Your task to perform on an android device: make emails show in primary in the gmail app Image 0: 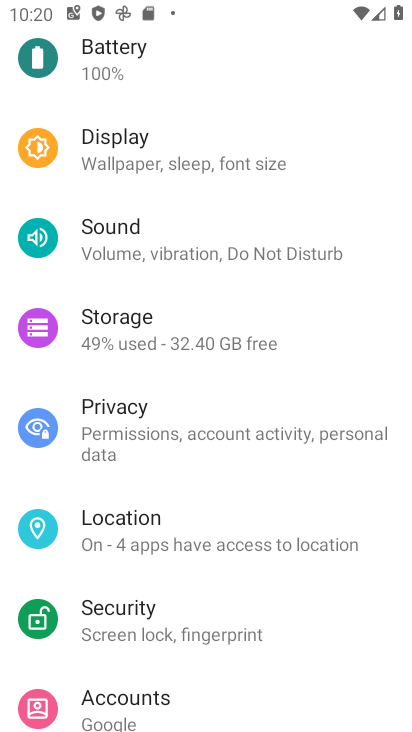
Step 0: press home button
Your task to perform on an android device: make emails show in primary in the gmail app Image 1: 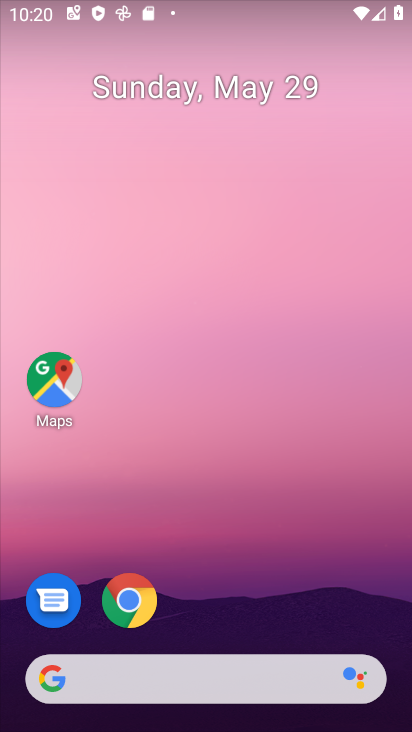
Step 1: drag from (206, 726) to (208, 142)
Your task to perform on an android device: make emails show in primary in the gmail app Image 2: 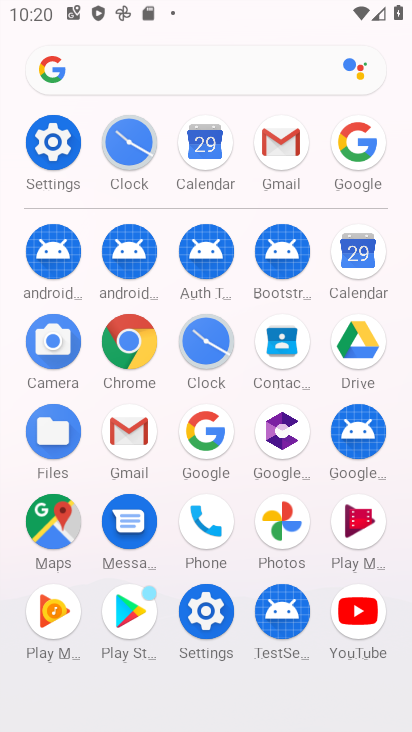
Step 2: click (130, 426)
Your task to perform on an android device: make emails show in primary in the gmail app Image 3: 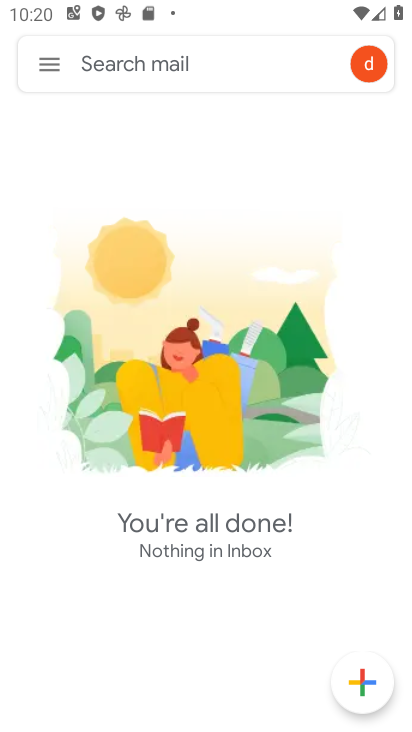
Step 3: click (46, 70)
Your task to perform on an android device: make emails show in primary in the gmail app Image 4: 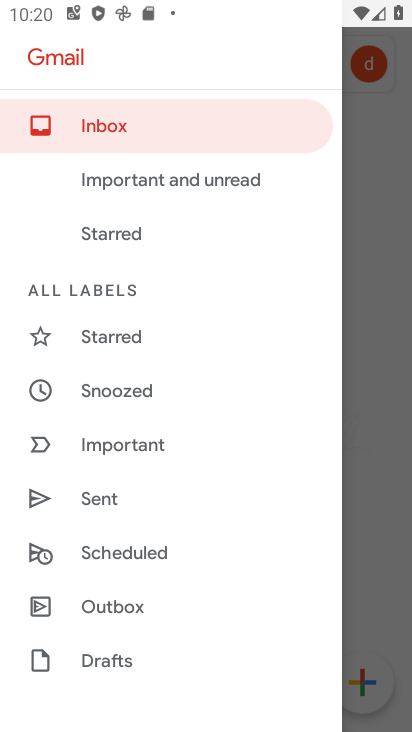
Step 4: drag from (133, 678) to (116, 235)
Your task to perform on an android device: make emails show in primary in the gmail app Image 5: 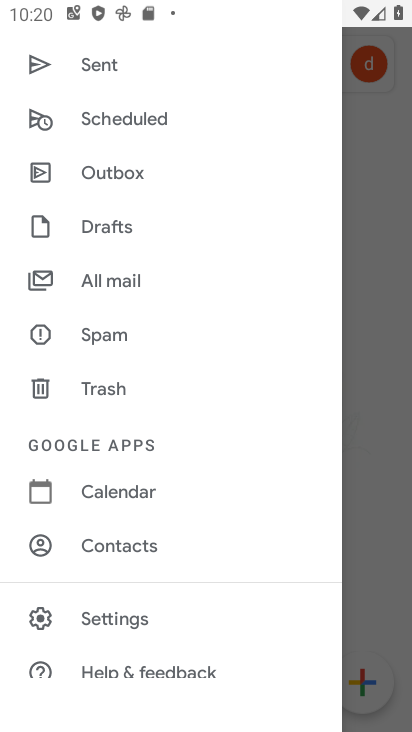
Step 5: drag from (135, 644) to (137, 297)
Your task to perform on an android device: make emails show in primary in the gmail app Image 6: 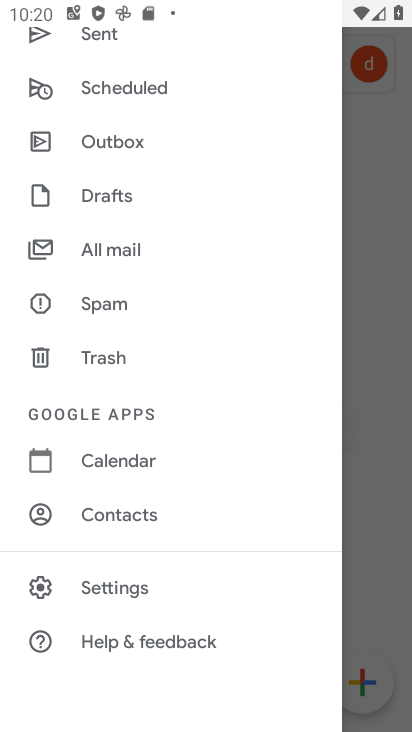
Step 6: click (125, 585)
Your task to perform on an android device: make emails show in primary in the gmail app Image 7: 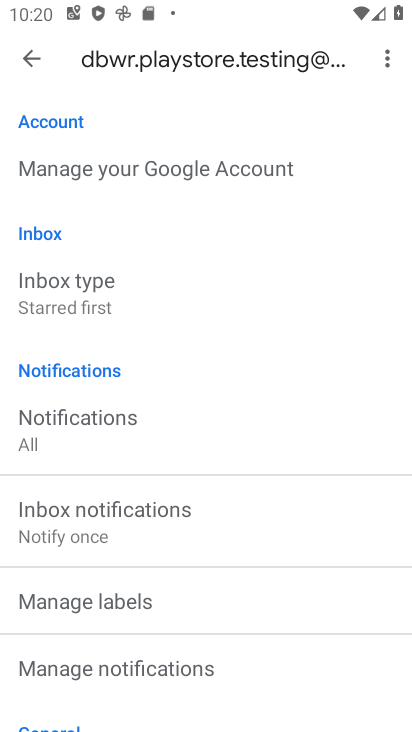
Step 7: drag from (172, 705) to (187, 237)
Your task to perform on an android device: make emails show in primary in the gmail app Image 8: 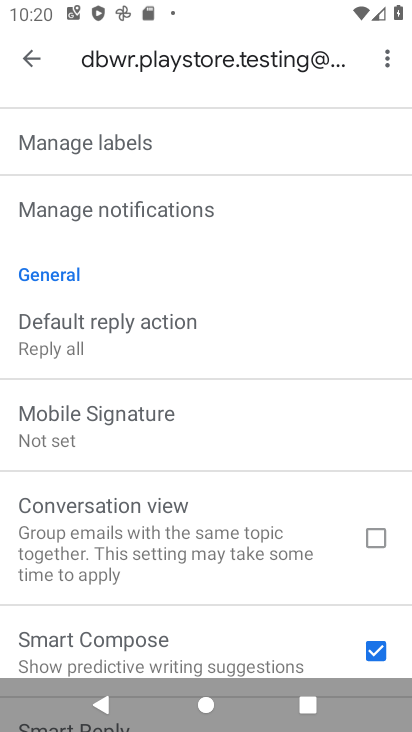
Step 8: drag from (178, 640) to (192, 254)
Your task to perform on an android device: make emails show in primary in the gmail app Image 9: 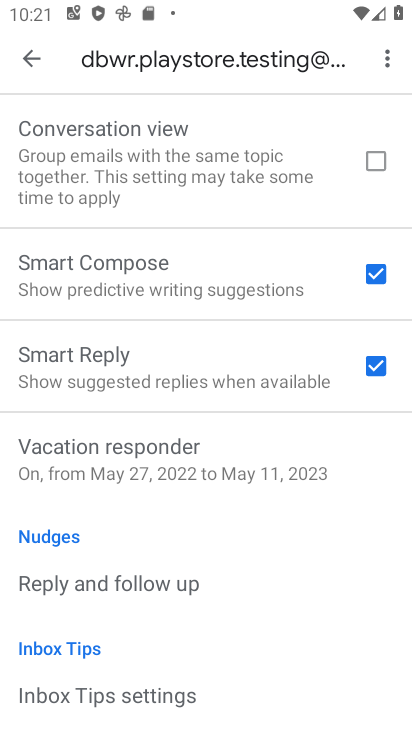
Step 9: drag from (205, 111) to (206, 634)
Your task to perform on an android device: make emails show in primary in the gmail app Image 10: 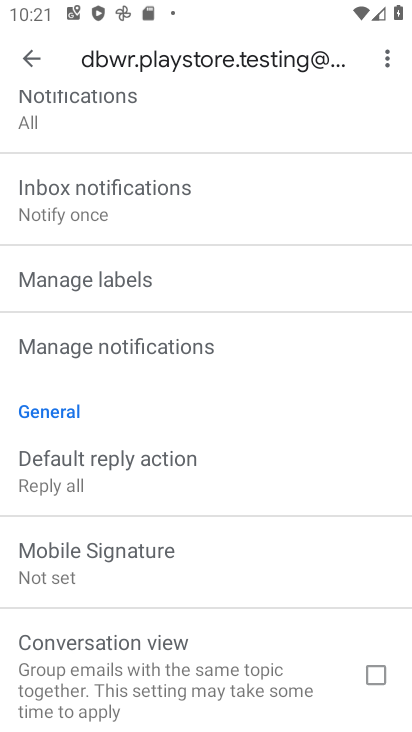
Step 10: drag from (246, 140) to (245, 530)
Your task to perform on an android device: make emails show in primary in the gmail app Image 11: 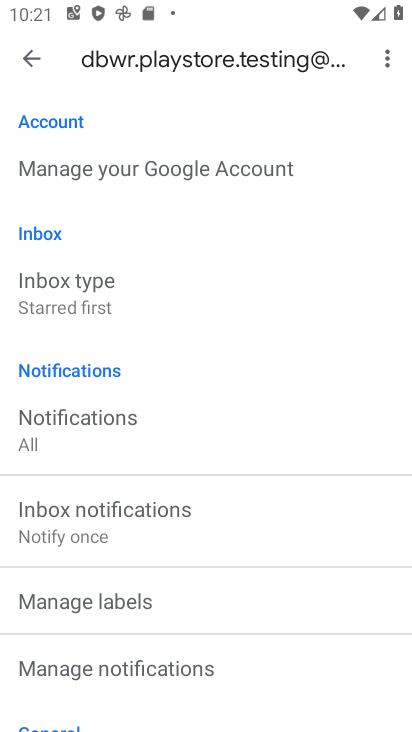
Step 11: drag from (237, 217) to (239, 358)
Your task to perform on an android device: make emails show in primary in the gmail app Image 12: 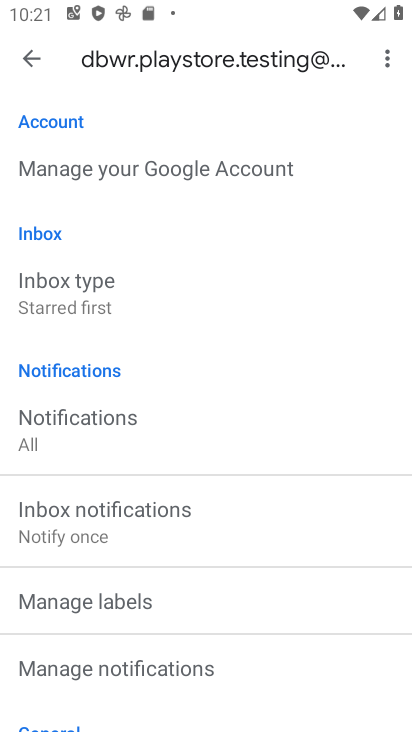
Step 12: click (55, 298)
Your task to perform on an android device: make emails show in primary in the gmail app Image 13: 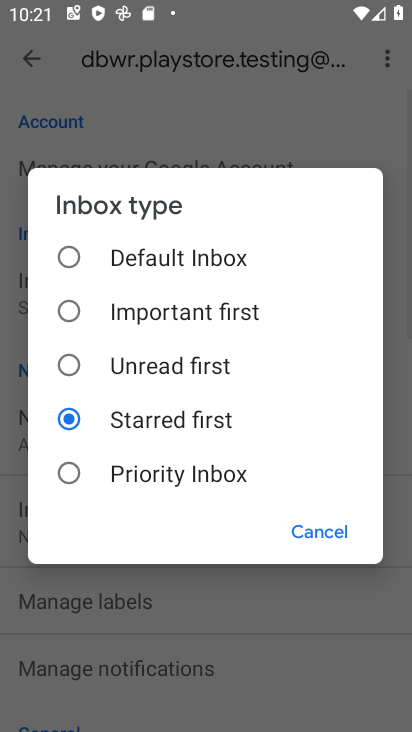
Step 13: click (67, 261)
Your task to perform on an android device: make emails show in primary in the gmail app Image 14: 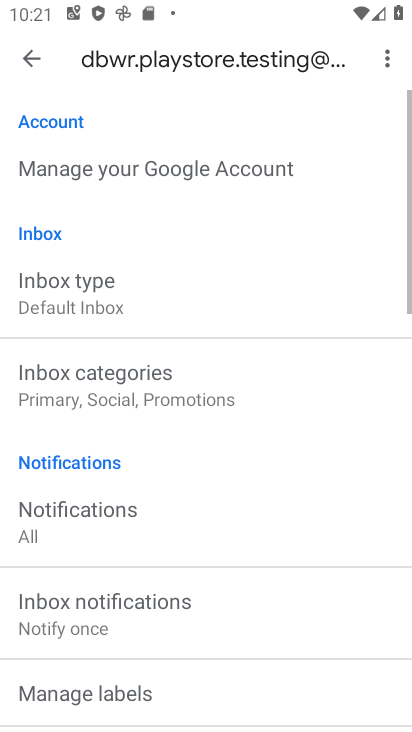
Step 14: click (120, 386)
Your task to perform on an android device: make emails show in primary in the gmail app Image 15: 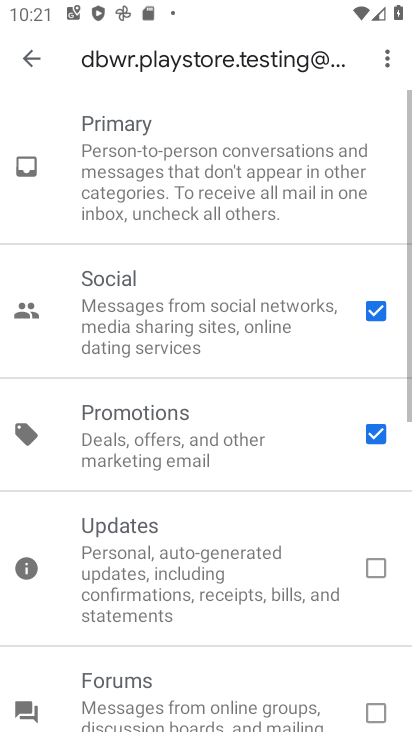
Step 15: click (380, 429)
Your task to perform on an android device: make emails show in primary in the gmail app Image 16: 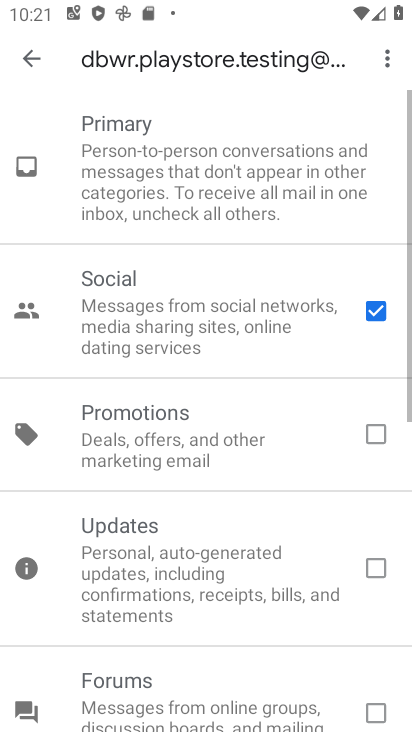
Step 16: click (376, 312)
Your task to perform on an android device: make emails show in primary in the gmail app Image 17: 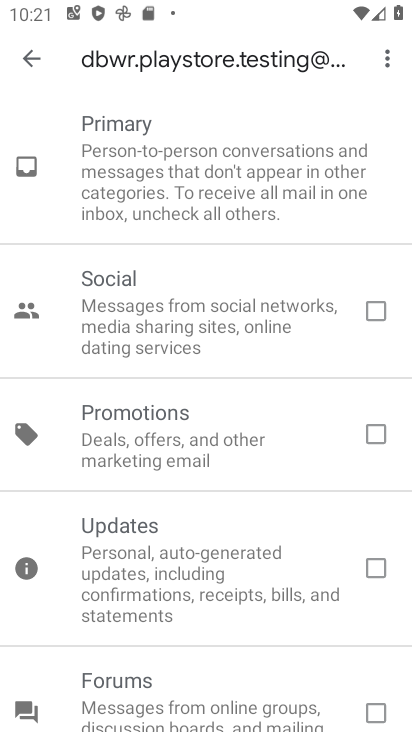
Step 17: click (32, 55)
Your task to perform on an android device: make emails show in primary in the gmail app Image 18: 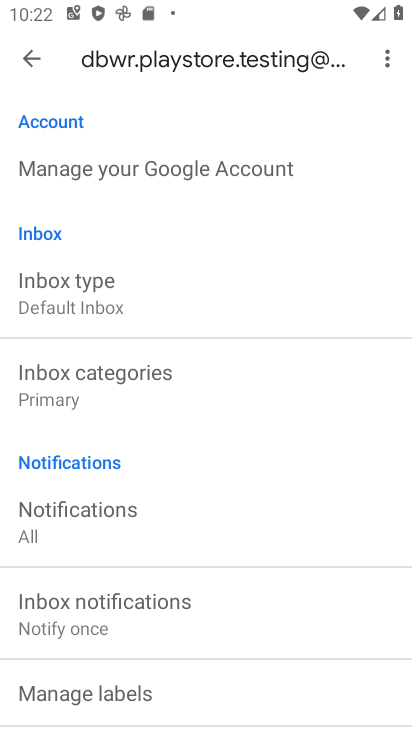
Step 18: task complete